Your task to perform on an android device: Turn on the flashlight Image 0: 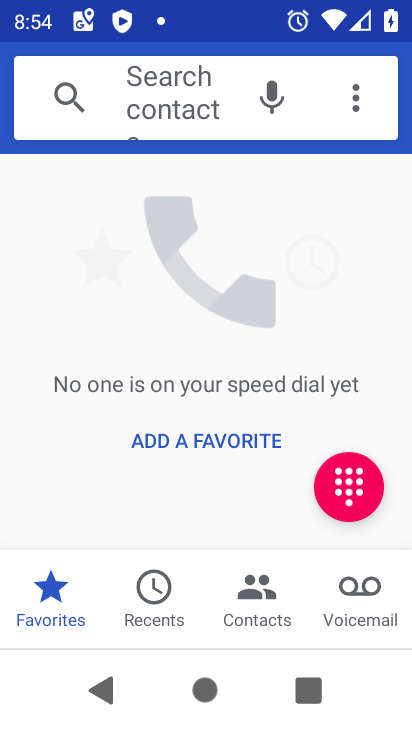
Step 0: press home button
Your task to perform on an android device: Turn on the flashlight Image 1: 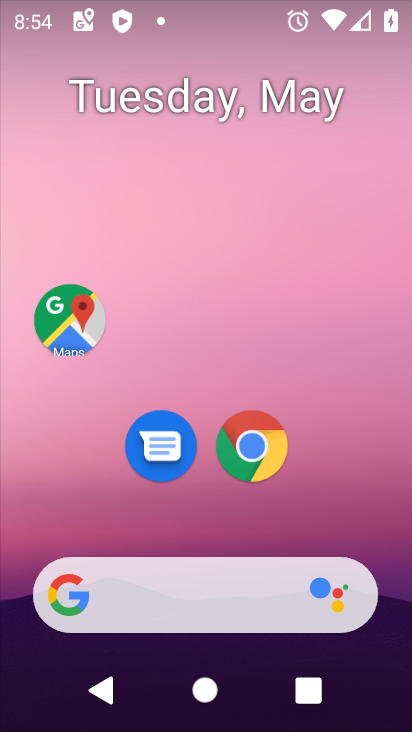
Step 1: task complete